Your task to perform on an android device: When is my next meeting? Image 0: 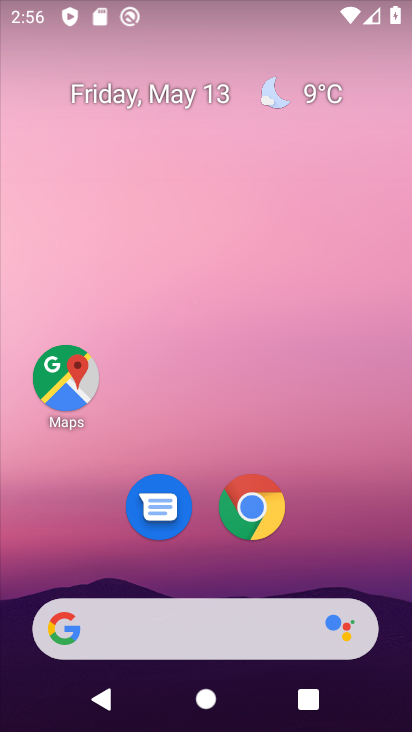
Step 0: drag from (211, 694) to (241, 162)
Your task to perform on an android device: When is my next meeting? Image 1: 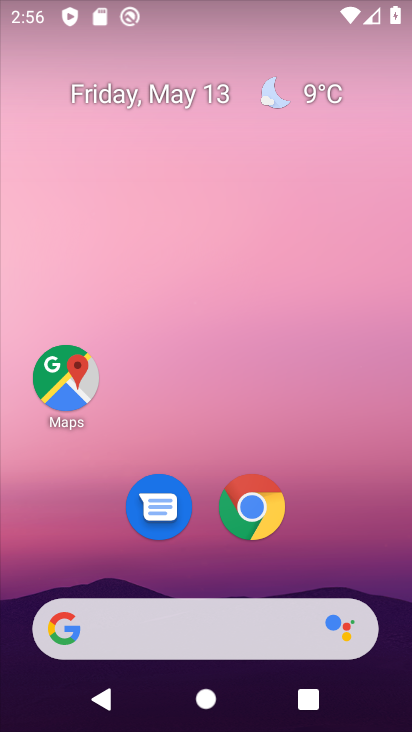
Step 1: drag from (253, 477) to (237, 114)
Your task to perform on an android device: When is my next meeting? Image 2: 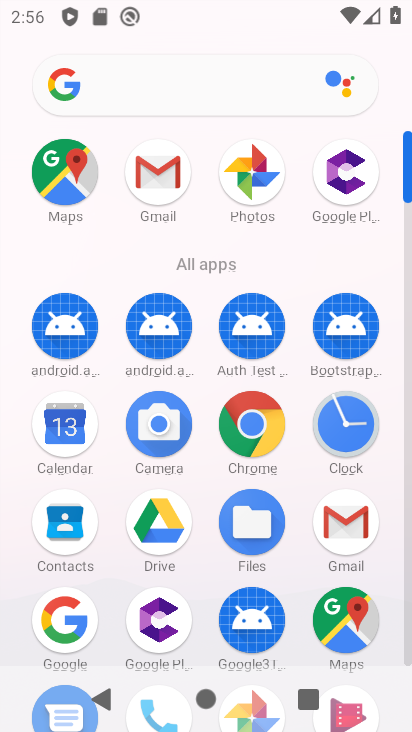
Step 2: click (58, 454)
Your task to perform on an android device: When is my next meeting? Image 3: 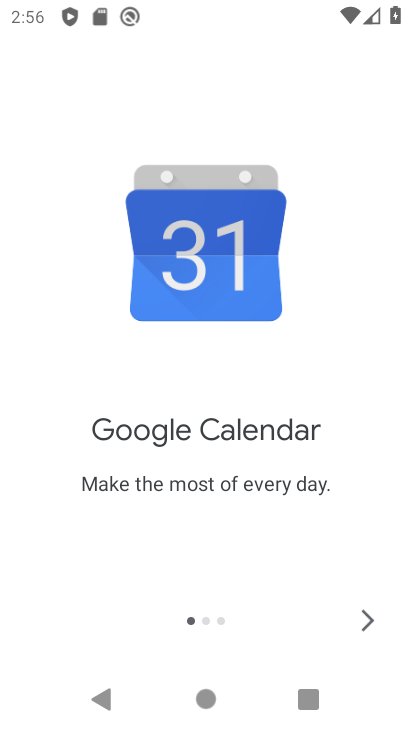
Step 3: click (373, 604)
Your task to perform on an android device: When is my next meeting? Image 4: 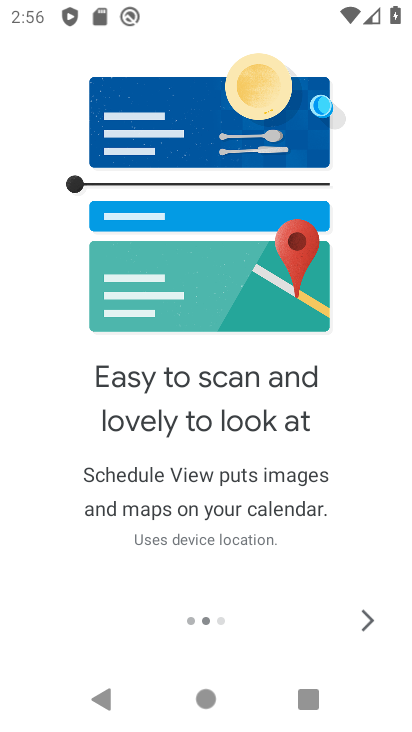
Step 4: click (373, 604)
Your task to perform on an android device: When is my next meeting? Image 5: 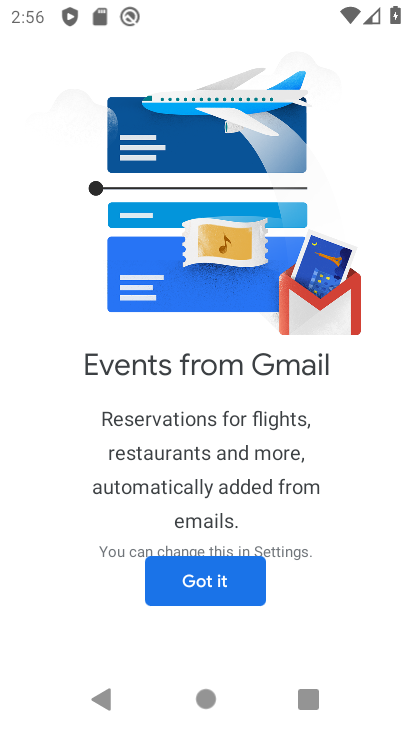
Step 5: click (211, 587)
Your task to perform on an android device: When is my next meeting? Image 6: 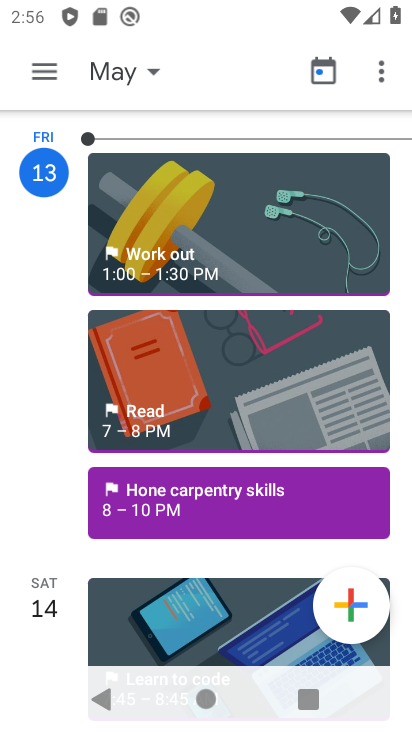
Step 6: click (43, 68)
Your task to perform on an android device: When is my next meeting? Image 7: 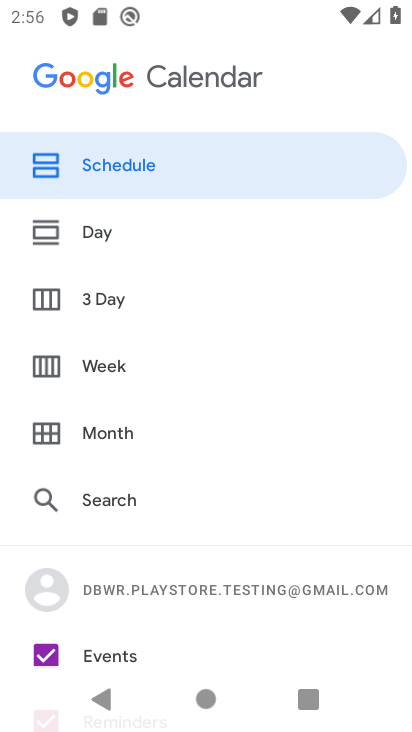
Step 7: click (148, 190)
Your task to perform on an android device: When is my next meeting? Image 8: 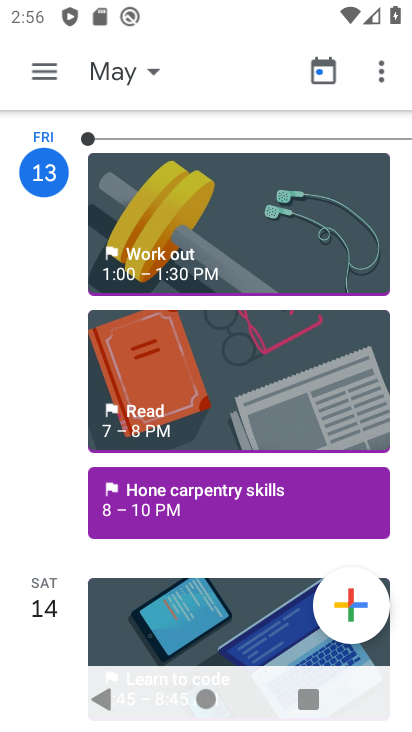
Step 8: task complete